Your task to perform on an android device: set default search engine in the chrome app Image 0: 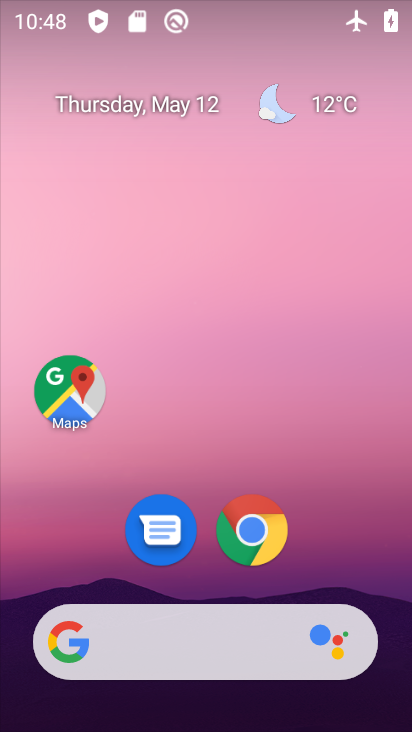
Step 0: drag from (221, 638) to (411, 69)
Your task to perform on an android device: set default search engine in the chrome app Image 1: 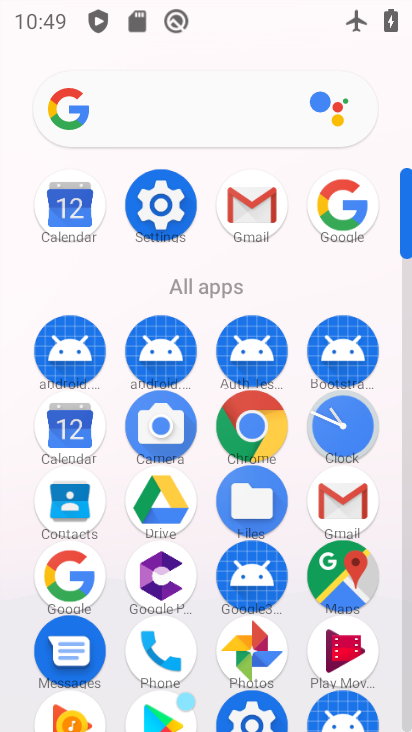
Step 1: click (272, 431)
Your task to perform on an android device: set default search engine in the chrome app Image 2: 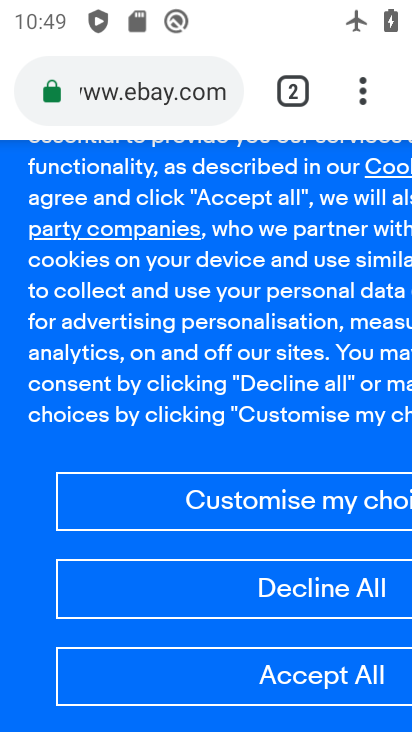
Step 2: drag from (357, 84) to (158, 581)
Your task to perform on an android device: set default search engine in the chrome app Image 3: 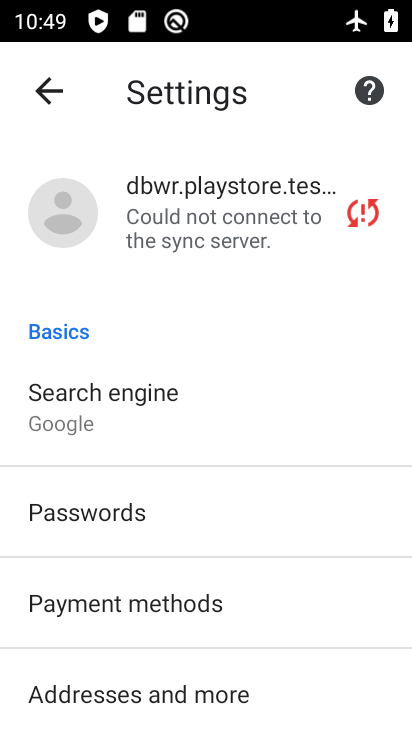
Step 3: click (99, 402)
Your task to perform on an android device: set default search engine in the chrome app Image 4: 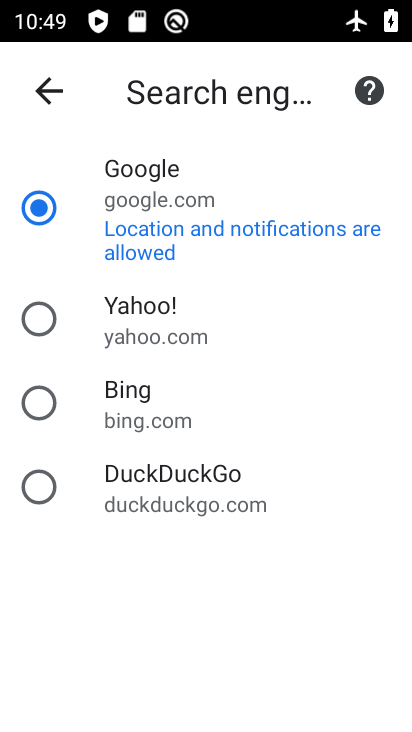
Step 4: click (44, 322)
Your task to perform on an android device: set default search engine in the chrome app Image 5: 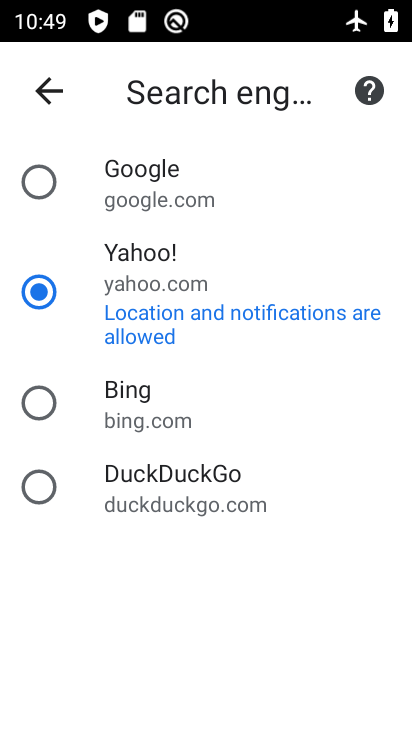
Step 5: task complete